Your task to perform on an android device: manage bookmarks in the chrome app Image 0: 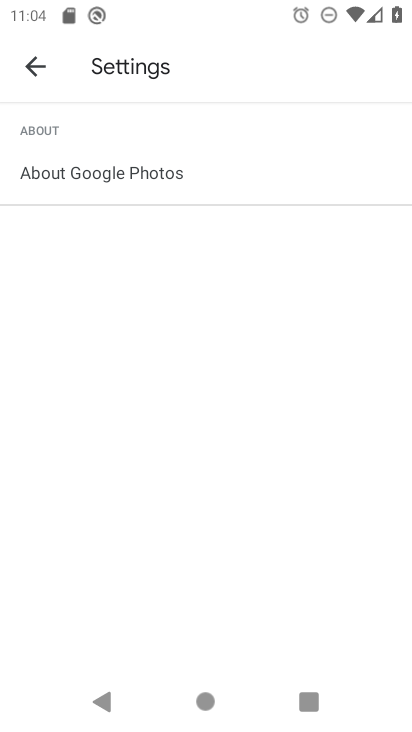
Step 0: press home button
Your task to perform on an android device: manage bookmarks in the chrome app Image 1: 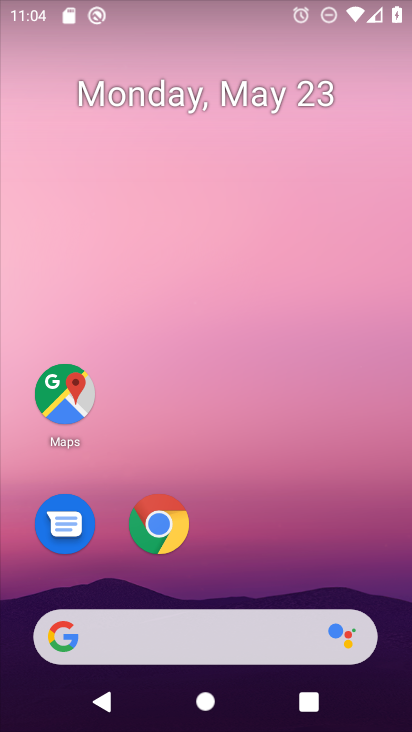
Step 1: click (172, 522)
Your task to perform on an android device: manage bookmarks in the chrome app Image 2: 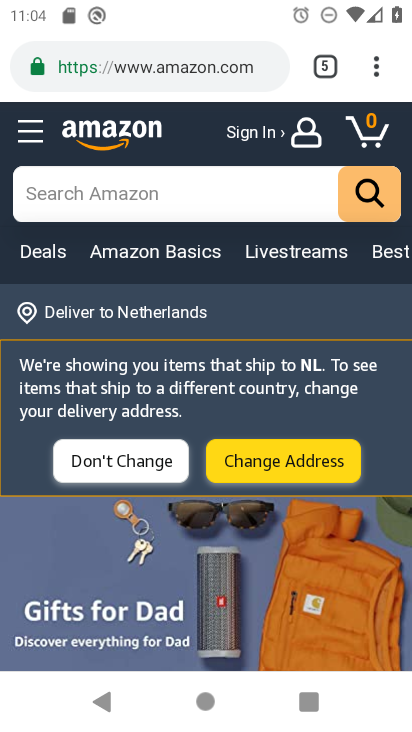
Step 2: click (367, 79)
Your task to perform on an android device: manage bookmarks in the chrome app Image 3: 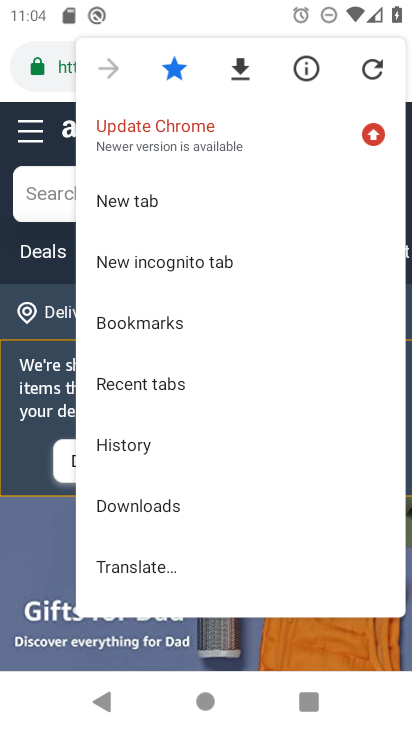
Step 3: click (187, 323)
Your task to perform on an android device: manage bookmarks in the chrome app Image 4: 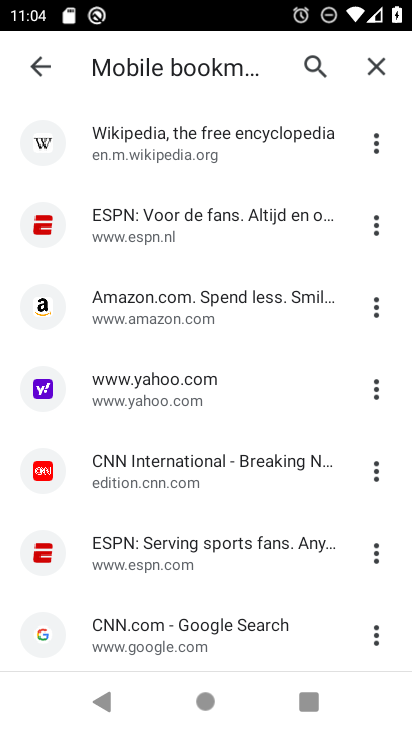
Step 4: click (379, 463)
Your task to perform on an android device: manage bookmarks in the chrome app Image 5: 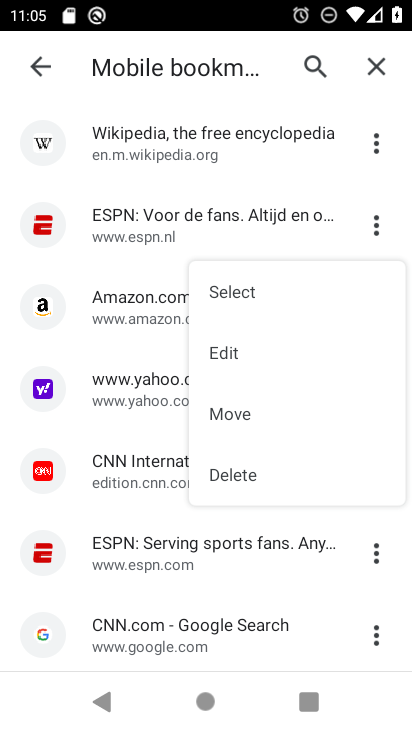
Step 5: click (286, 467)
Your task to perform on an android device: manage bookmarks in the chrome app Image 6: 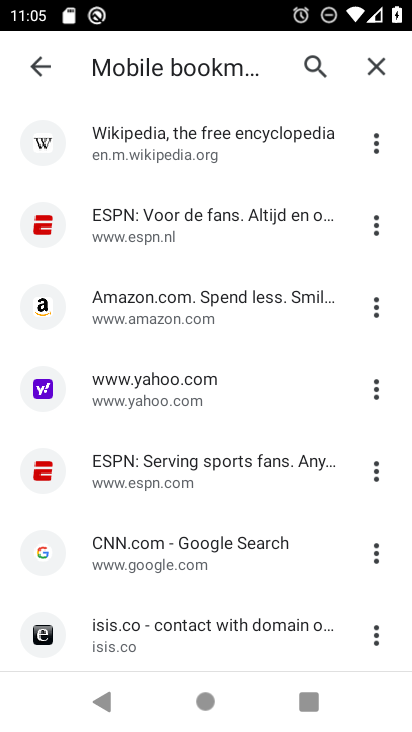
Step 6: task complete